Your task to perform on an android device: snooze an email in the gmail app Image 0: 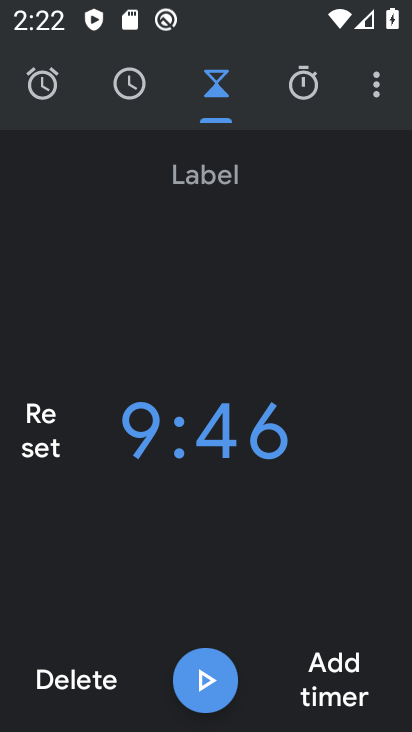
Step 0: press home button
Your task to perform on an android device: snooze an email in the gmail app Image 1: 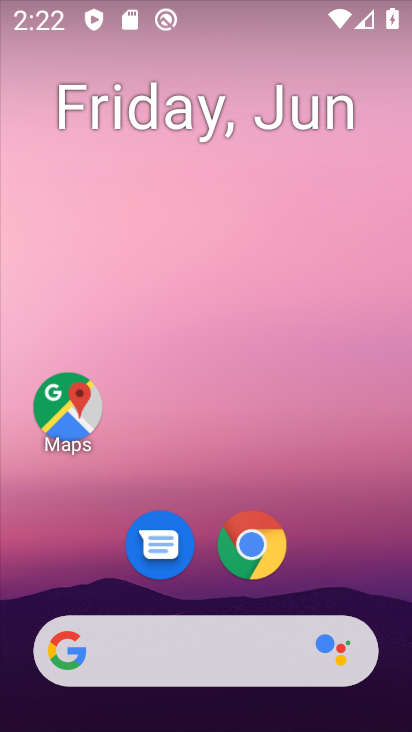
Step 1: drag from (309, 584) to (354, 60)
Your task to perform on an android device: snooze an email in the gmail app Image 2: 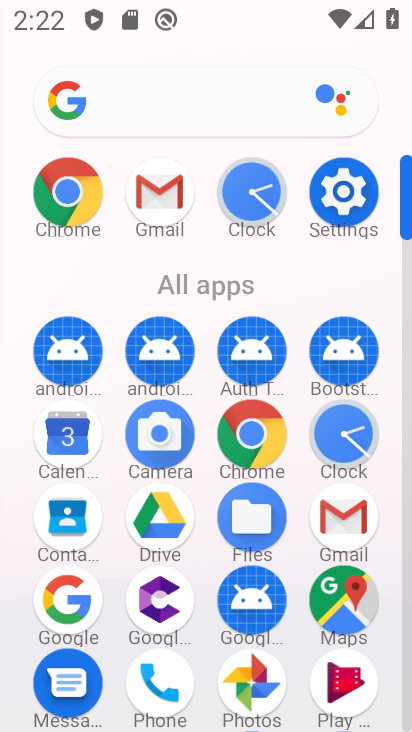
Step 2: click (338, 518)
Your task to perform on an android device: snooze an email in the gmail app Image 3: 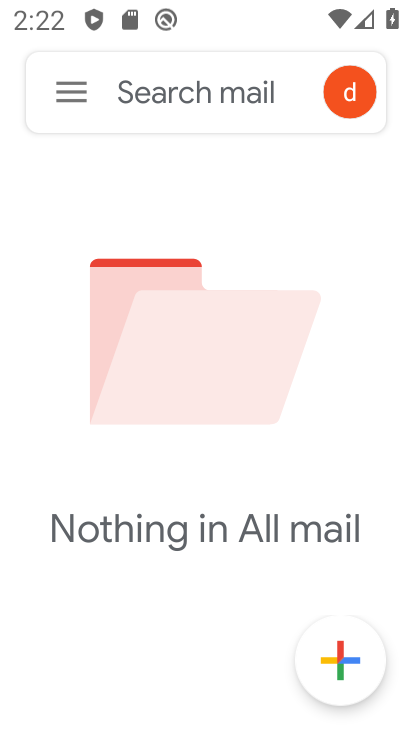
Step 3: click (70, 91)
Your task to perform on an android device: snooze an email in the gmail app Image 4: 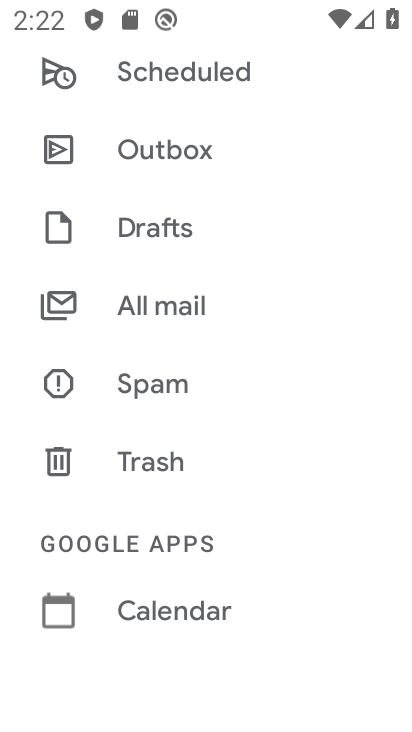
Step 4: click (169, 299)
Your task to perform on an android device: snooze an email in the gmail app Image 5: 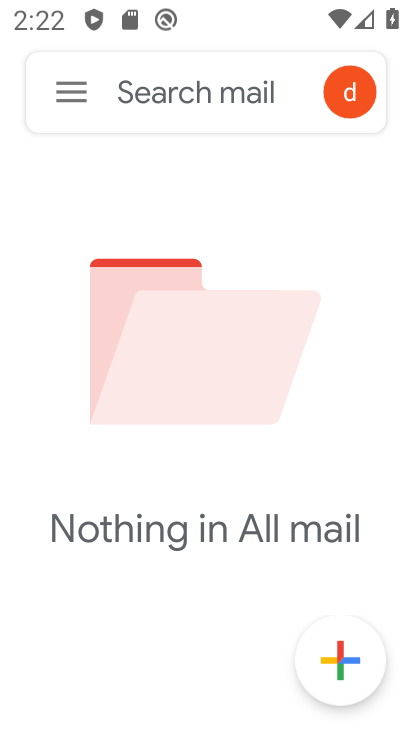
Step 5: task complete